Your task to perform on an android device: toggle show notifications on the lock screen Image 0: 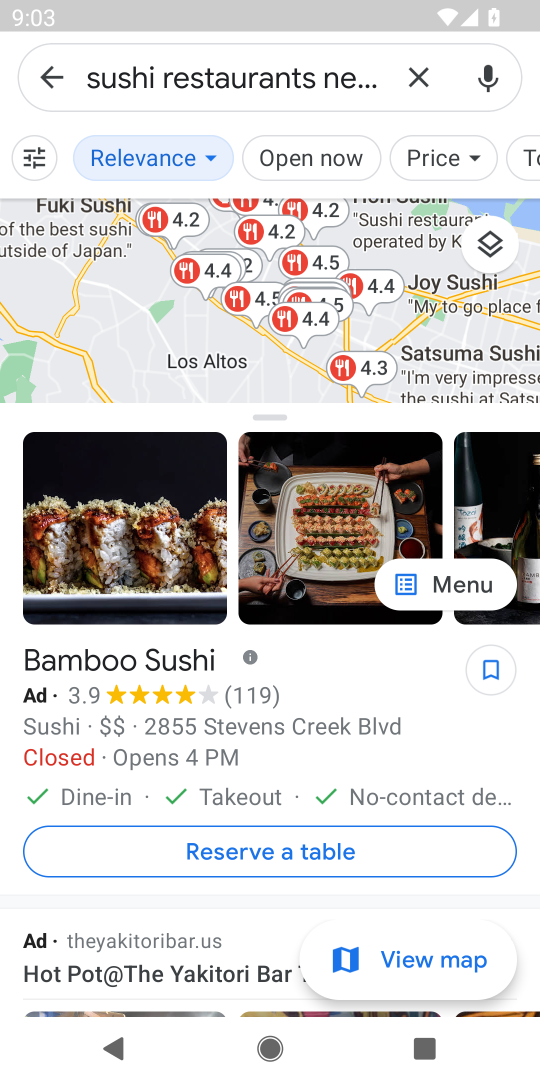
Step 0: press home button
Your task to perform on an android device: toggle show notifications on the lock screen Image 1: 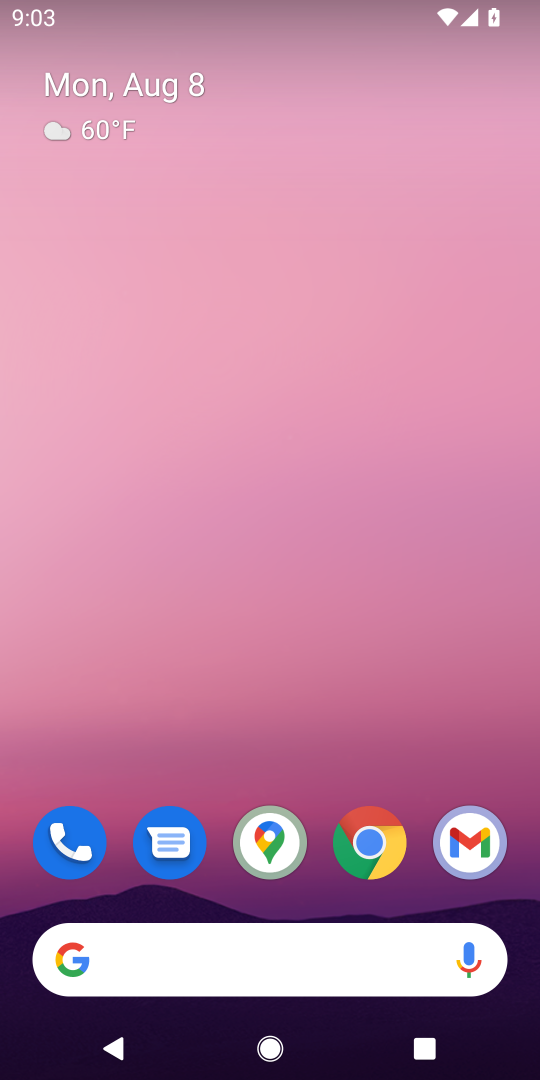
Step 1: drag from (386, 697) to (359, 9)
Your task to perform on an android device: toggle show notifications on the lock screen Image 2: 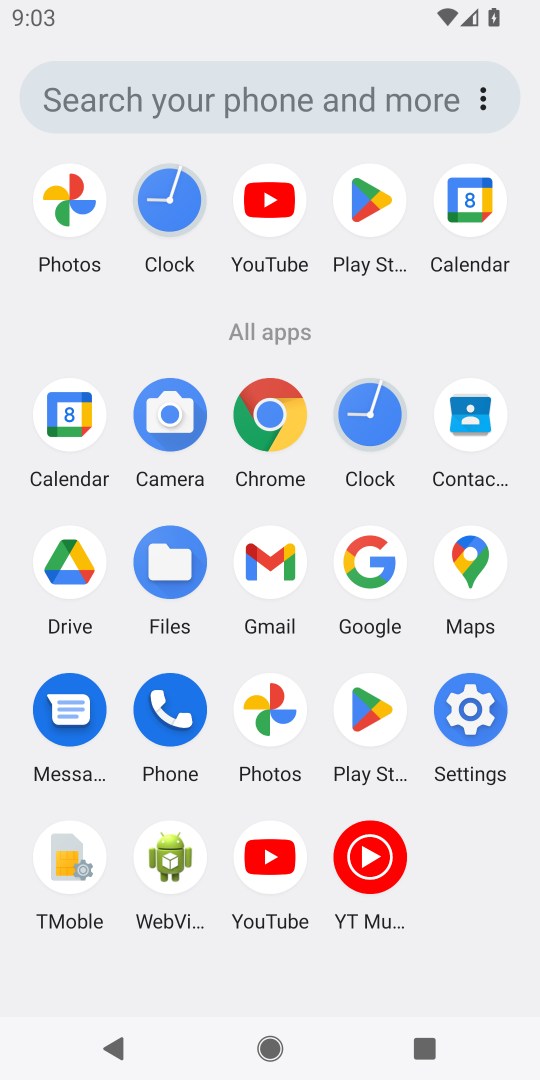
Step 2: click (487, 707)
Your task to perform on an android device: toggle show notifications on the lock screen Image 3: 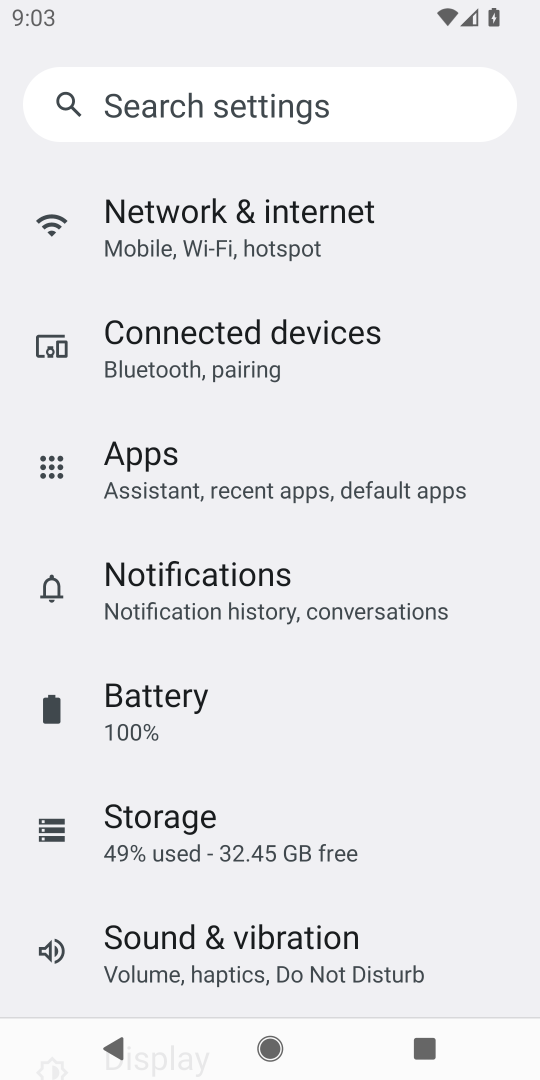
Step 3: click (249, 613)
Your task to perform on an android device: toggle show notifications on the lock screen Image 4: 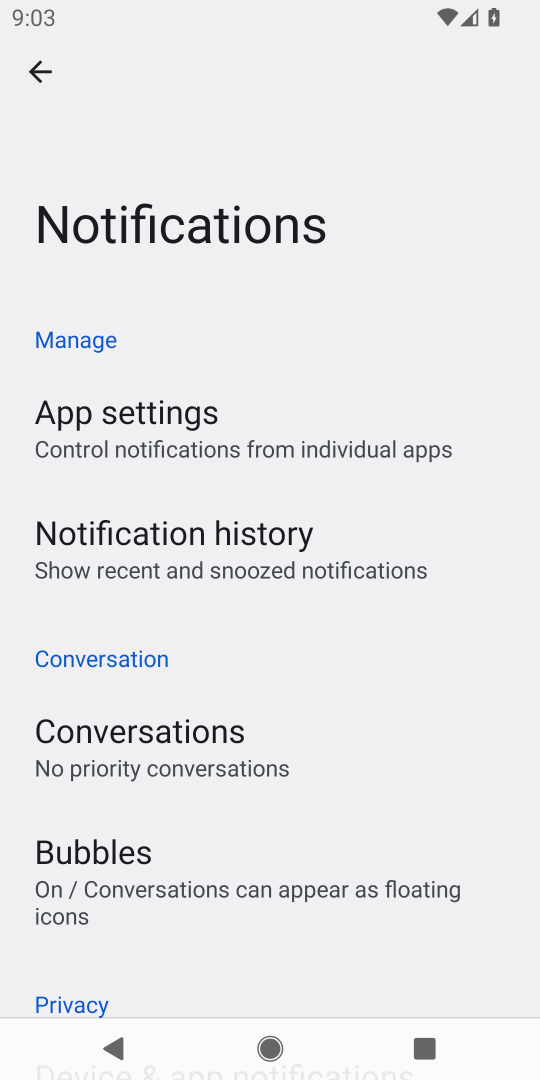
Step 4: drag from (336, 862) to (266, 311)
Your task to perform on an android device: toggle show notifications on the lock screen Image 5: 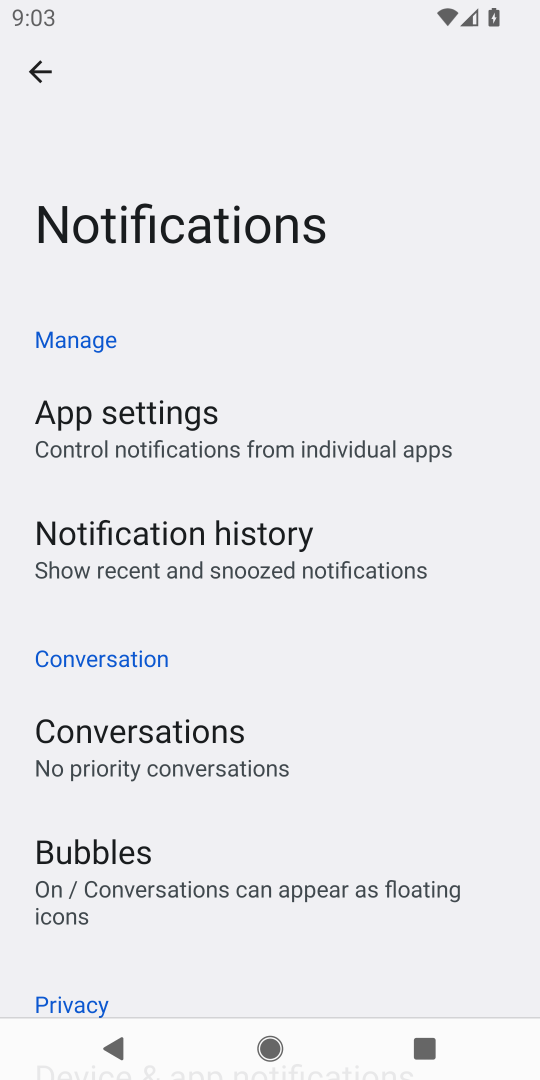
Step 5: drag from (285, 970) to (257, 1)
Your task to perform on an android device: toggle show notifications on the lock screen Image 6: 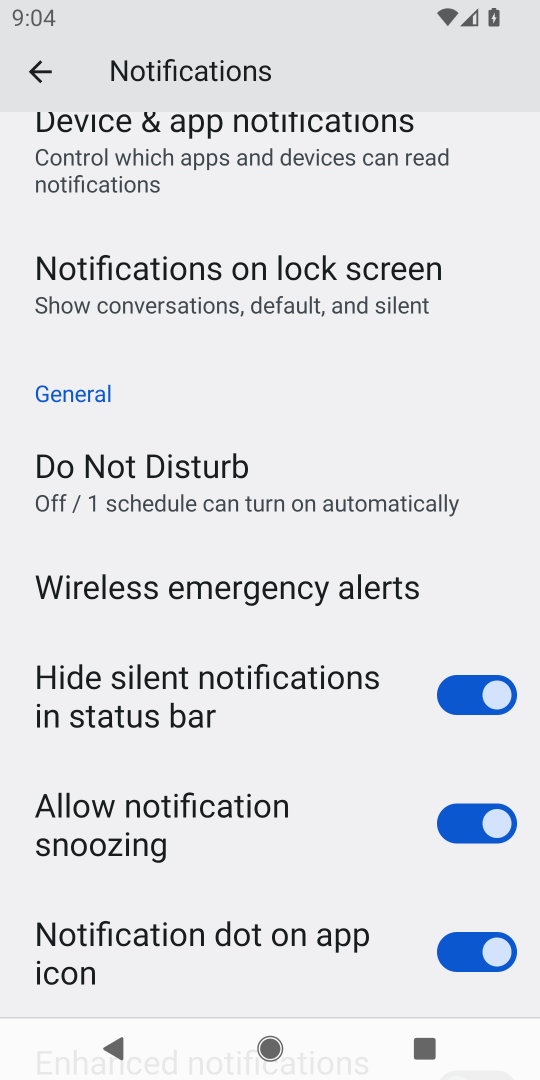
Step 6: click (337, 307)
Your task to perform on an android device: toggle show notifications on the lock screen Image 7: 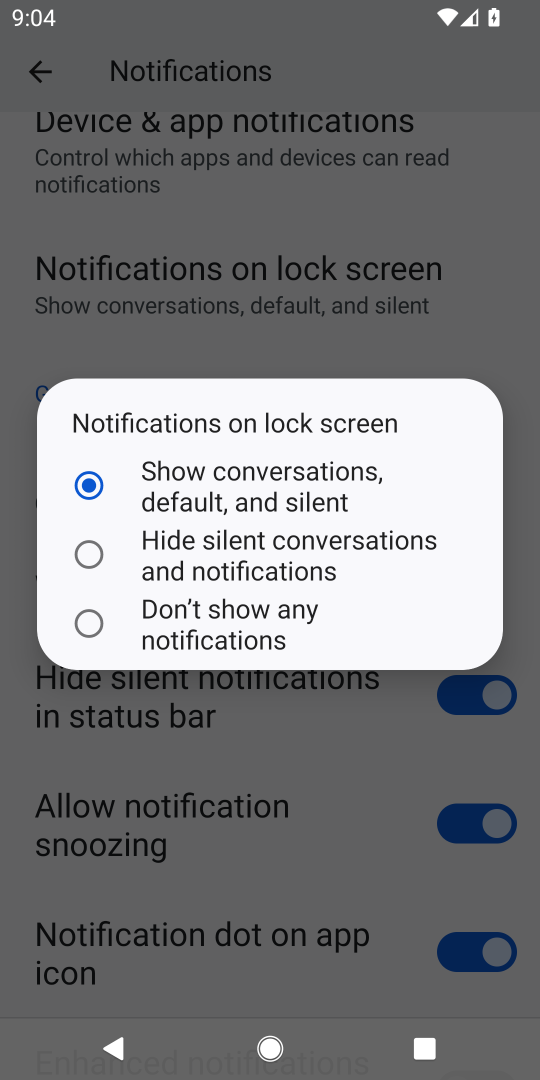
Step 7: click (275, 554)
Your task to perform on an android device: toggle show notifications on the lock screen Image 8: 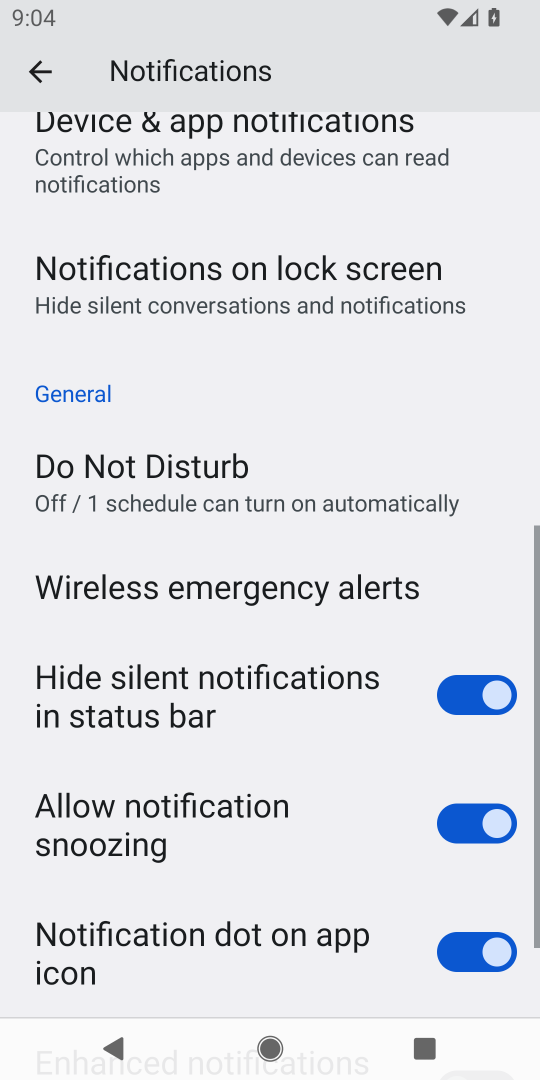
Step 8: task complete